Your task to perform on an android device: open sync settings in chrome Image 0: 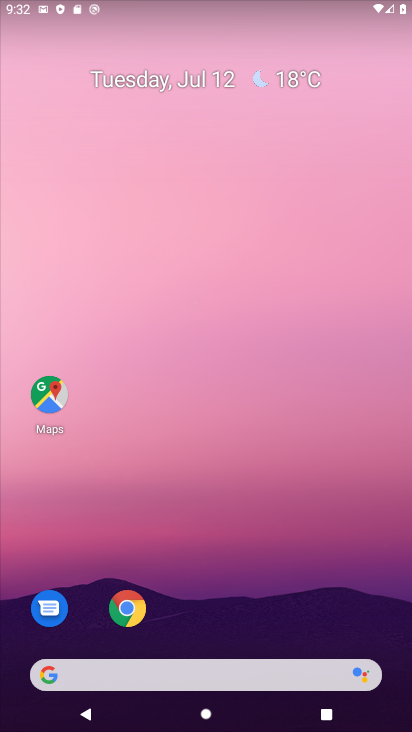
Step 0: click (127, 606)
Your task to perform on an android device: open sync settings in chrome Image 1: 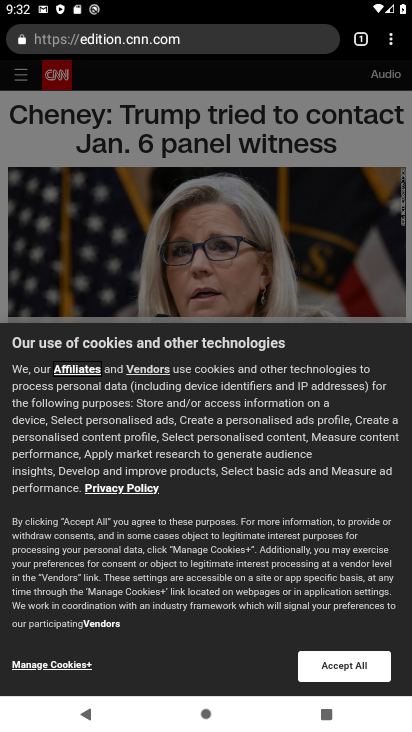
Step 1: click (391, 41)
Your task to perform on an android device: open sync settings in chrome Image 2: 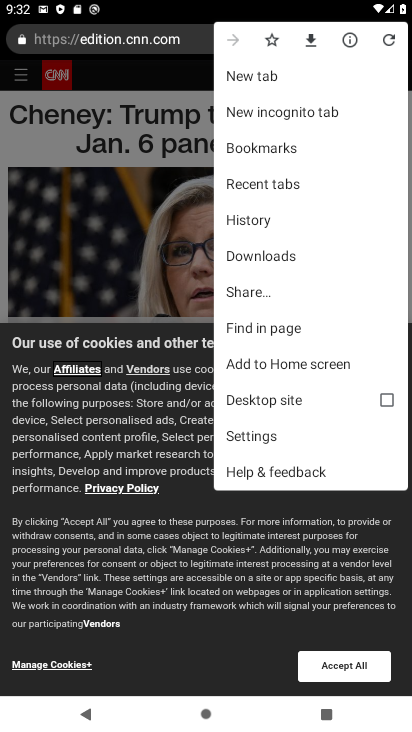
Step 2: click (259, 437)
Your task to perform on an android device: open sync settings in chrome Image 3: 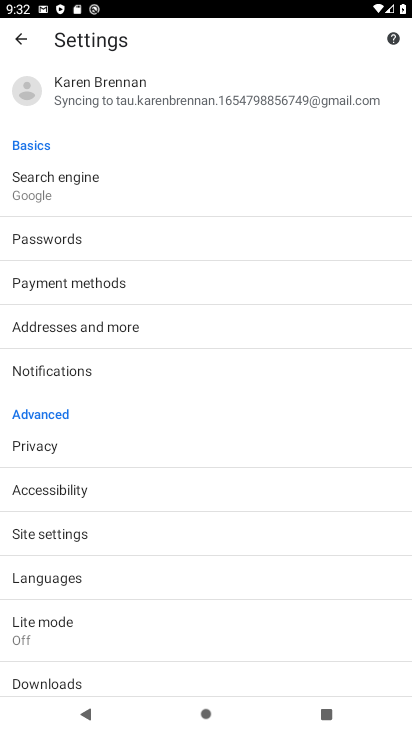
Step 3: click (103, 94)
Your task to perform on an android device: open sync settings in chrome Image 4: 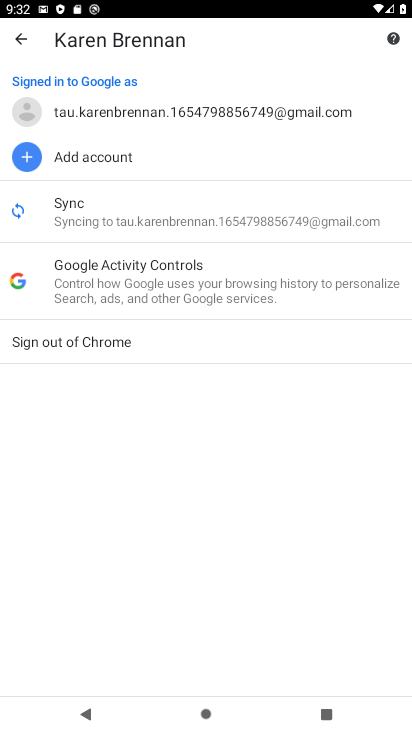
Step 4: click (76, 199)
Your task to perform on an android device: open sync settings in chrome Image 5: 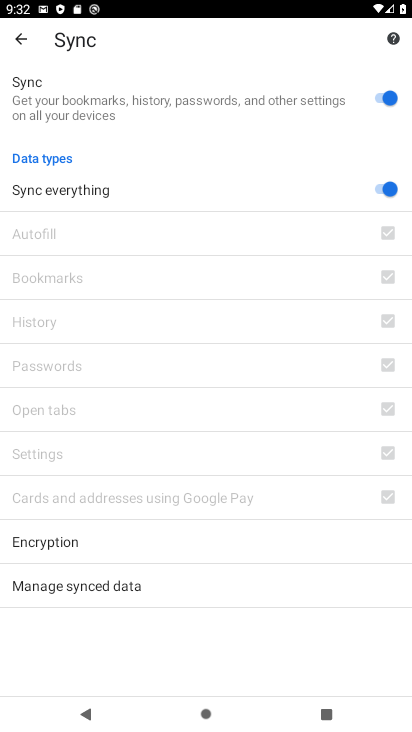
Step 5: task complete